Your task to perform on an android device: Is it going to rain tomorrow? Image 0: 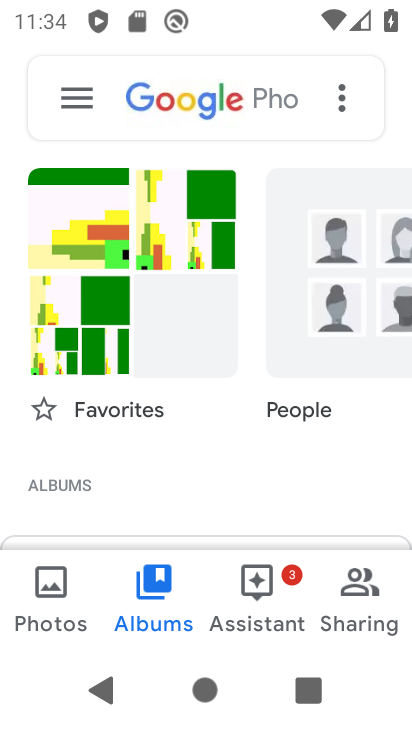
Step 0: press home button
Your task to perform on an android device: Is it going to rain tomorrow? Image 1: 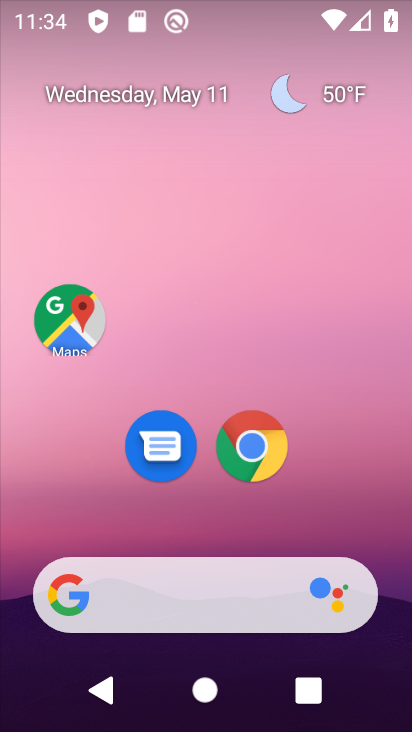
Step 1: click (307, 87)
Your task to perform on an android device: Is it going to rain tomorrow? Image 2: 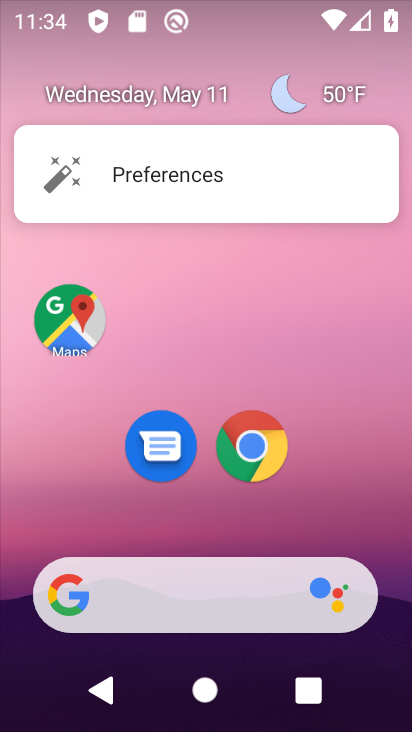
Step 2: drag from (292, 405) to (267, 219)
Your task to perform on an android device: Is it going to rain tomorrow? Image 3: 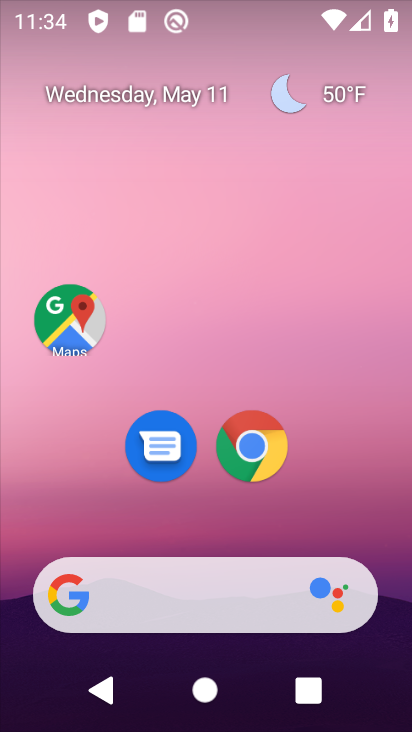
Step 3: drag from (347, 486) to (304, 125)
Your task to perform on an android device: Is it going to rain tomorrow? Image 4: 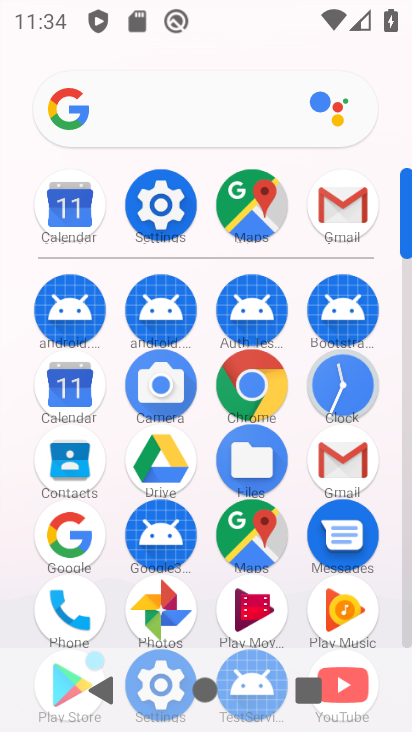
Step 4: drag from (286, 632) to (259, 206)
Your task to perform on an android device: Is it going to rain tomorrow? Image 5: 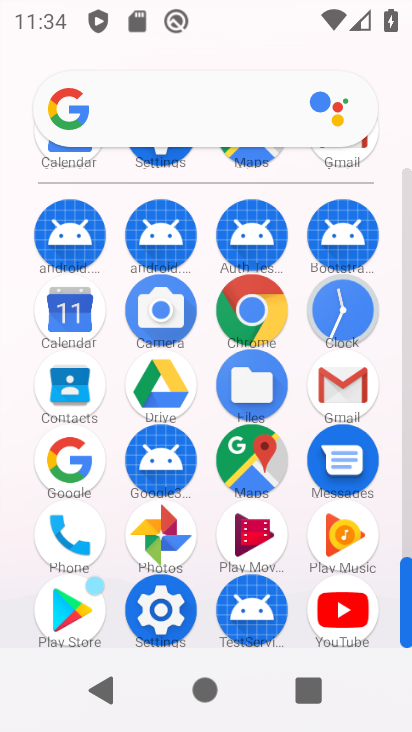
Step 5: click (52, 463)
Your task to perform on an android device: Is it going to rain tomorrow? Image 6: 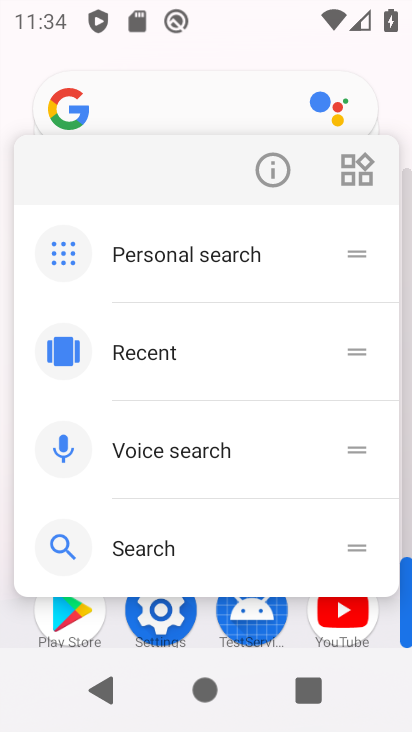
Step 6: press back button
Your task to perform on an android device: Is it going to rain tomorrow? Image 7: 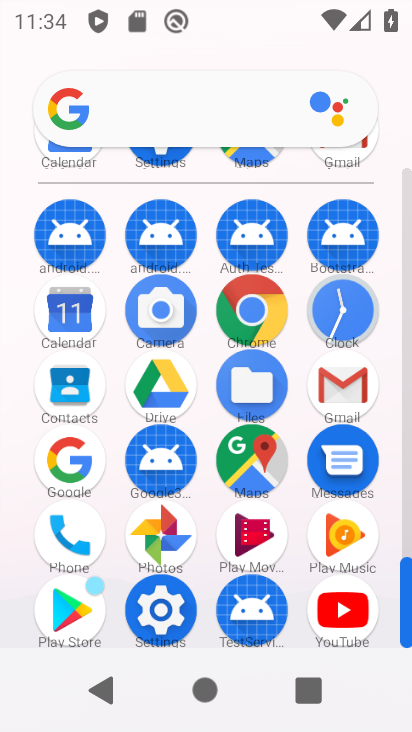
Step 7: press home button
Your task to perform on an android device: Is it going to rain tomorrow? Image 8: 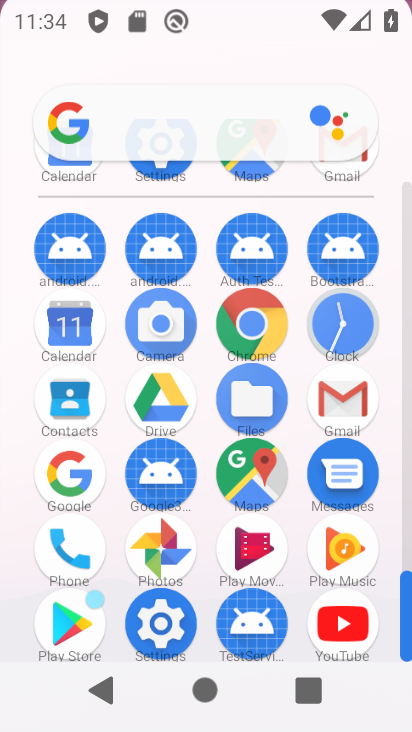
Step 8: press home button
Your task to perform on an android device: Is it going to rain tomorrow? Image 9: 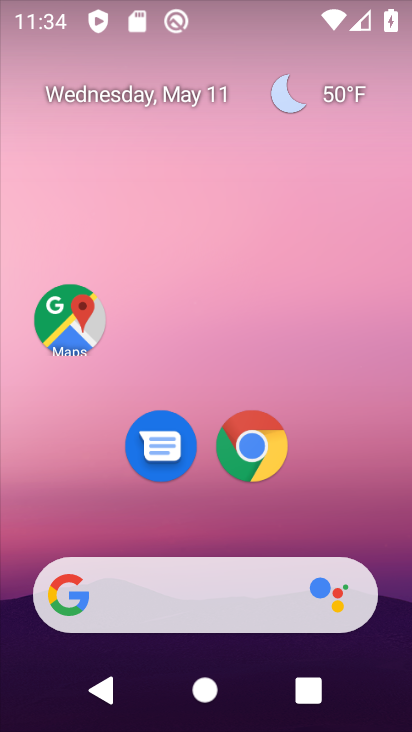
Step 9: click (187, 589)
Your task to perform on an android device: Is it going to rain tomorrow? Image 10: 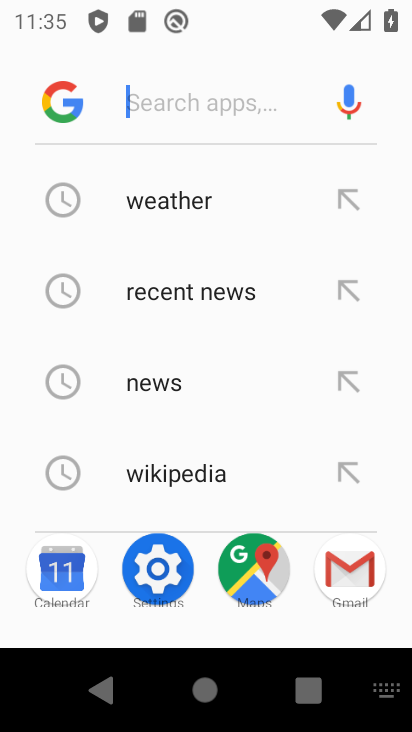
Step 10: click (217, 200)
Your task to perform on an android device: Is it going to rain tomorrow? Image 11: 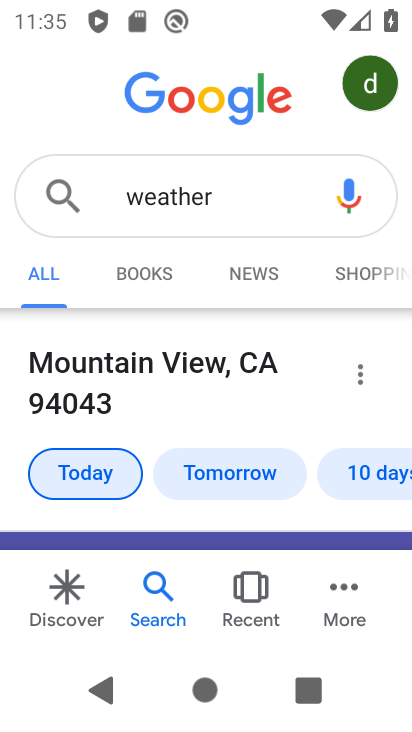
Step 11: click (197, 463)
Your task to perform on an android device: Is it going to rain tomorrow? Image 12: 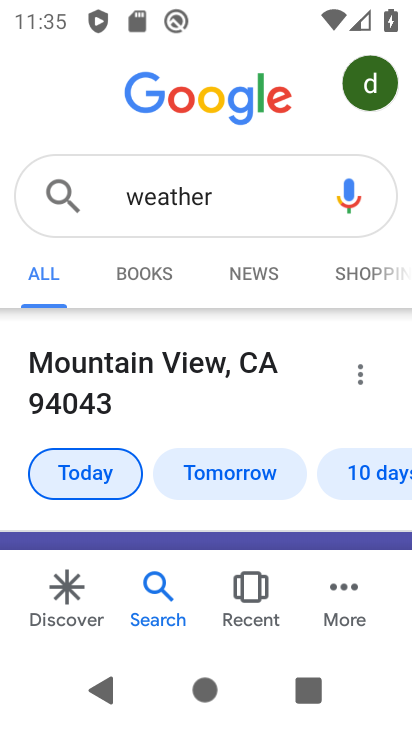
Step 12: drag from (226, 429) to (245, 154)
Your task to perform on an android device: Is it going to rain tomorrow? Image 13: 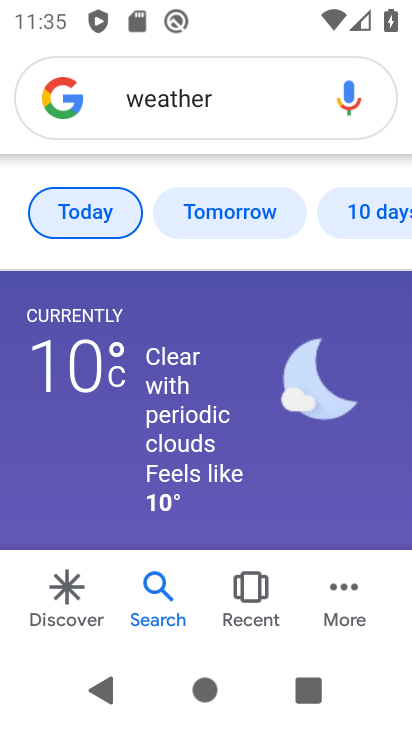
Step 13: click (243, 206)
Your task to perform on an android device: Is it going to rain tomorrow? Image 14: 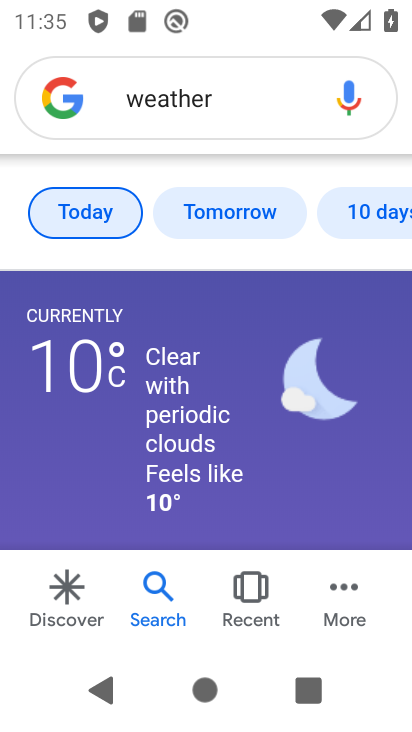
Step 14: click (243, 206)
Your task to perform on an android device: Is it going to rain tomorrow? Image 15: 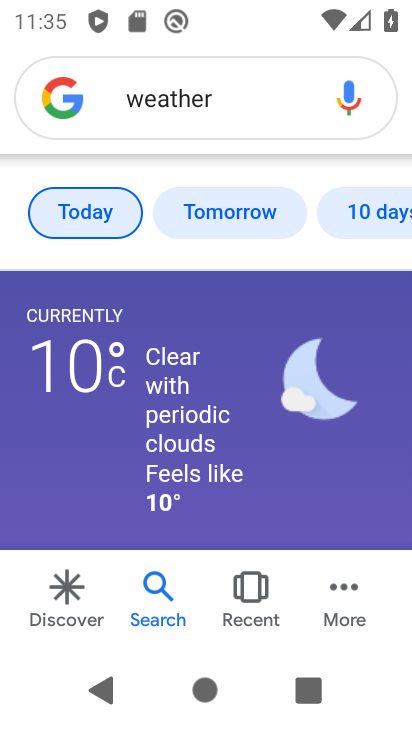
Step 15: click (243, 206)
Your task to perform on an android device: Is it going to rain tomorrow? Image 16: 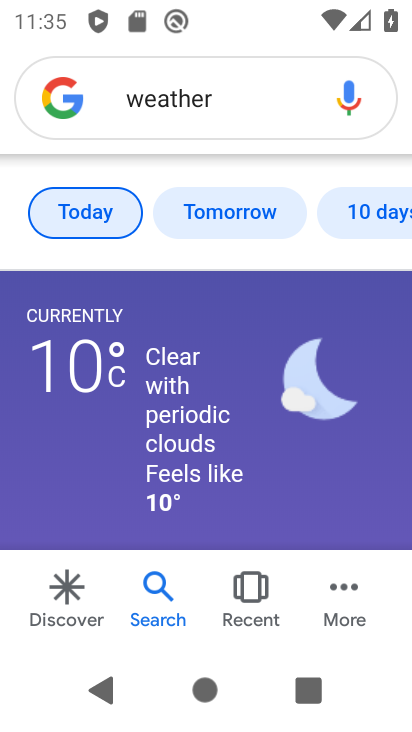
Step 16: click (246, 207)
Your task to perform on an android device: Is it going to rain tomorrow? Image 17: 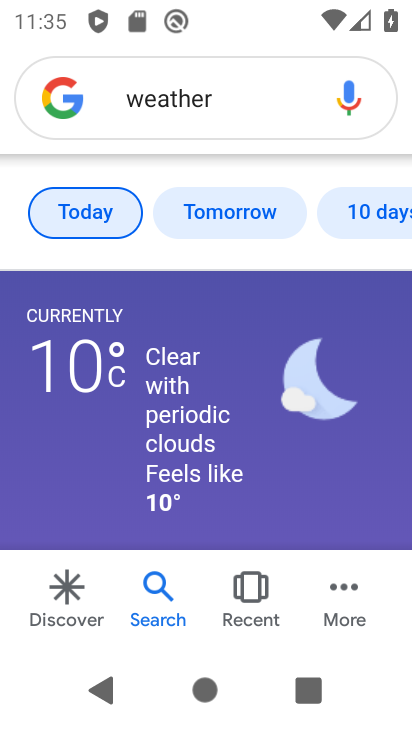
Step 17: click (248, 207)
Your task to perform on an android device: Is it going to rain tomorrow? Image 18: 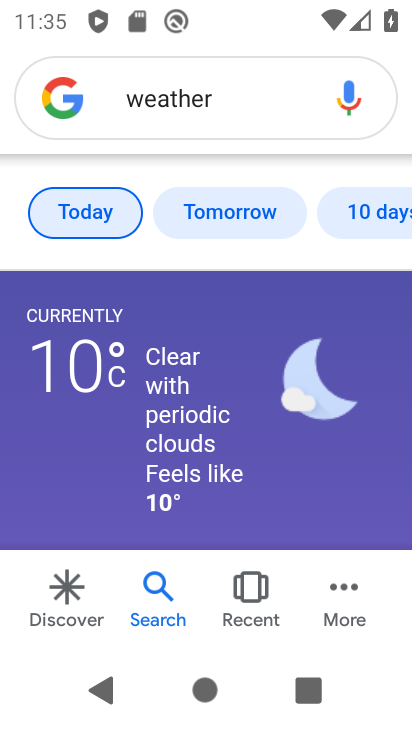
Step 18: click (249, 207)
Your task to perform on an android device: Is it going to rain tomorrow? Image 19: 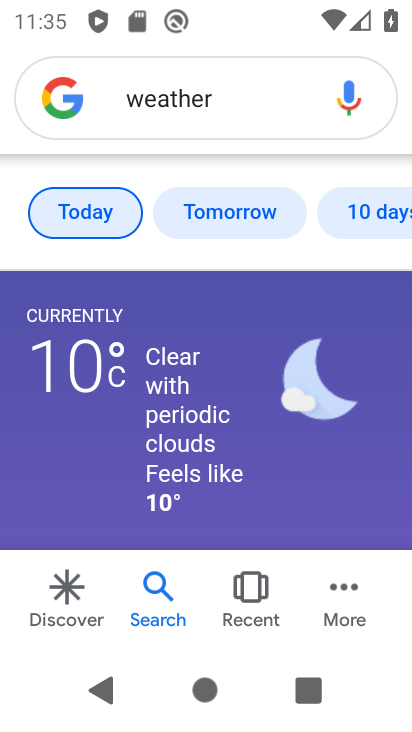
Step 19: click (249, 207)
Your task to perform on an android device: Is it going to rain tomorrow? Image 20: 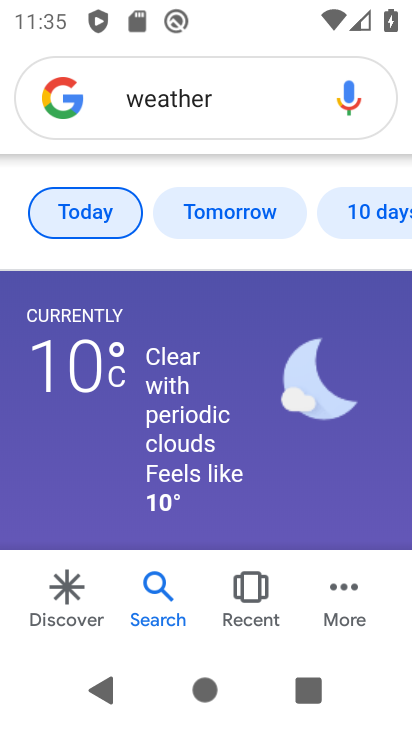
Step 20: click (249, 207)
Your task to perform on an android device: Is it going to rain tomorrow? Image 21: 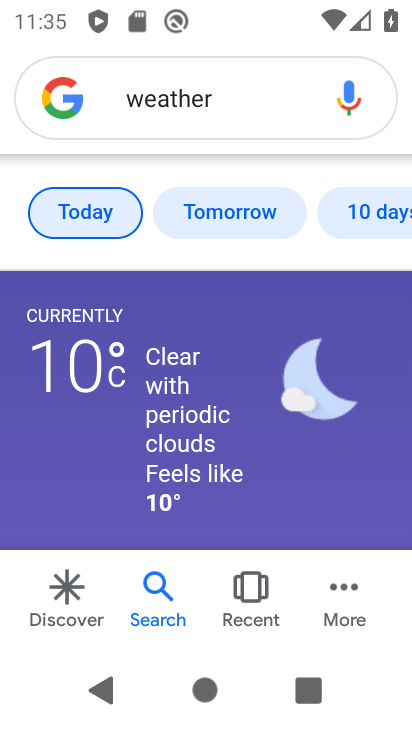
Step 21: click (249, 207)
Your task to perform on an android device: Is it going to rain tomorrow? Image 22: 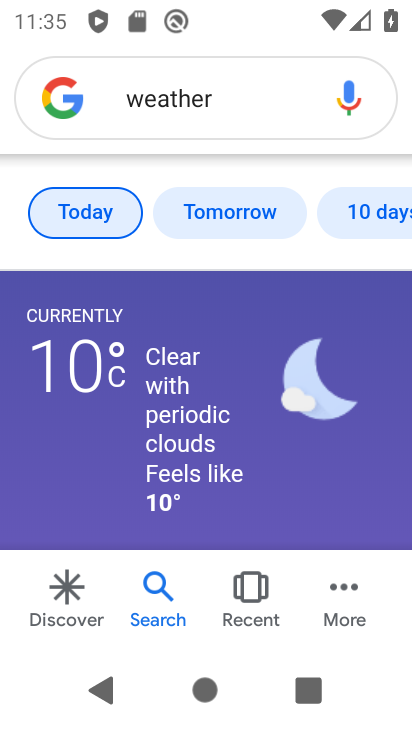
Step 22: click (249, 207)
Your task to perform on an android device: Is it going to rain tomorrow? Image 23: 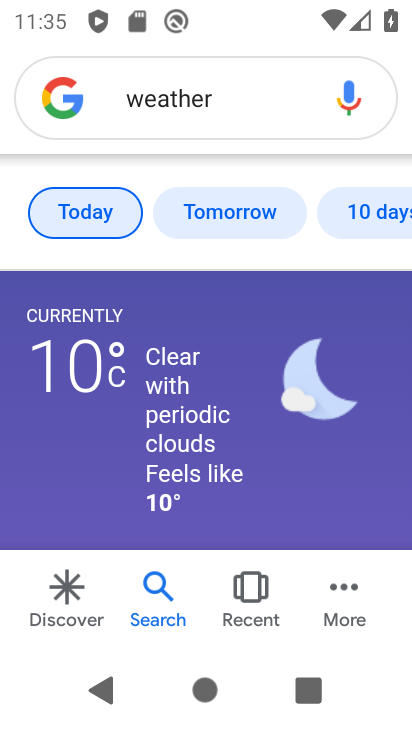
Step 23: task complete